Your task to perform on an android device: Go to Yahoo.com Image 0: 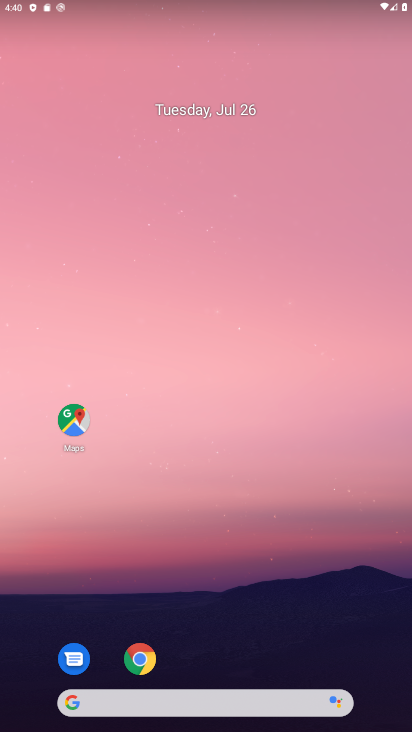
Step 0: click (145, 659)
Your task to perform on an android device: Go to Yahoo.com Image 1: 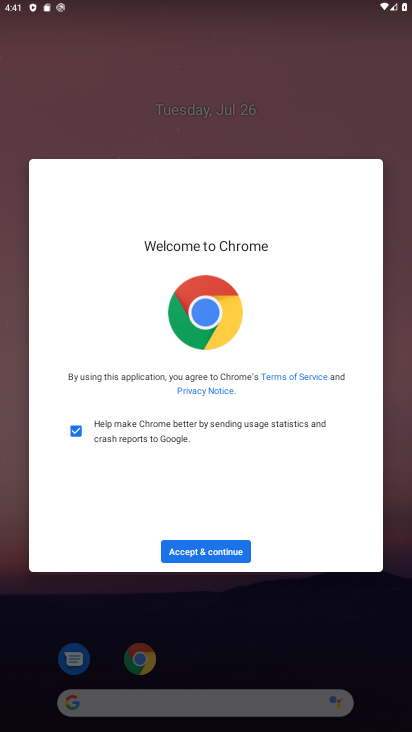
Step 1: click (197, 548)
Your task to perform on an android device: Go to Yahoo.com Image 2: 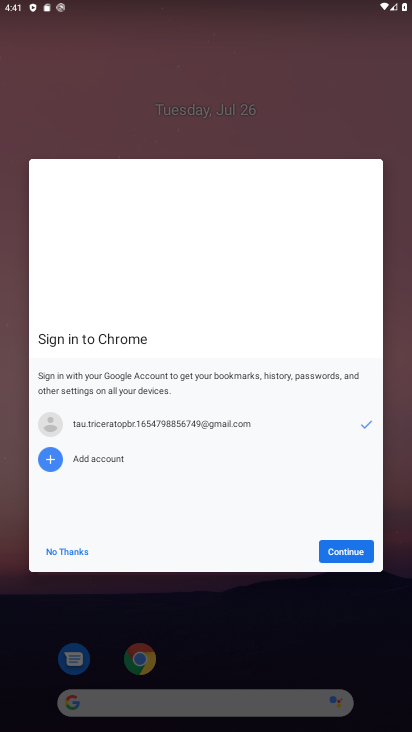
Step 2: click (350, 543)
Your task to perform on an android device: Go to Yahoo.com Image 3: 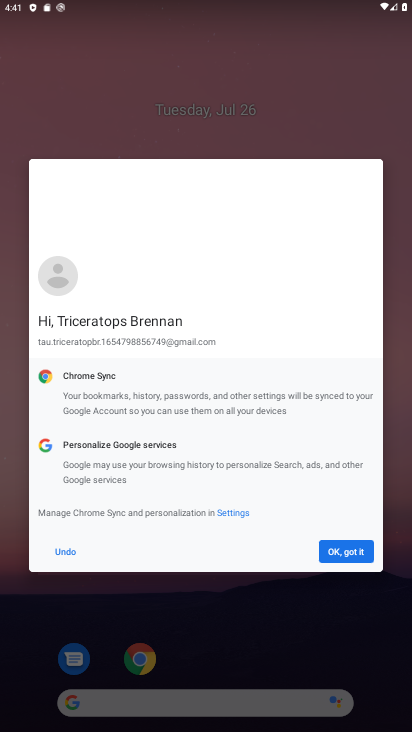
Step 3: click (347, 551)
Your task to perform on an android device: Go to Yahoo.com Image 4: 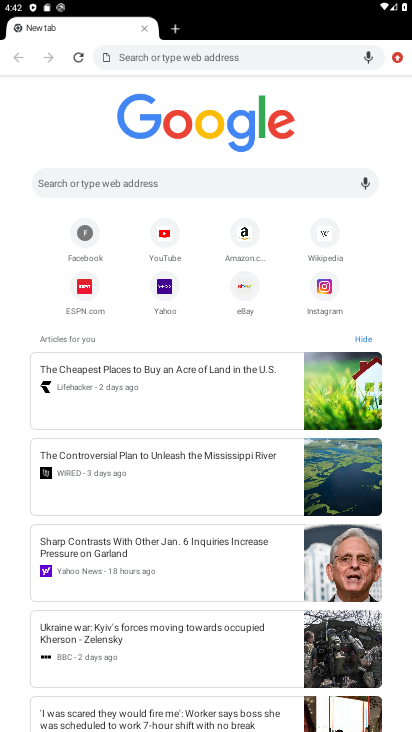
Step 4: click (121, 185)
Your task to perform on an android device: Go to Yahoo.com Image 5: 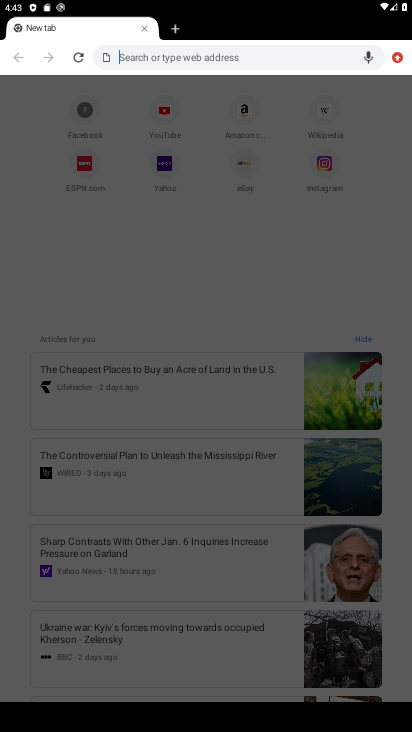
Step 5: type "Yahoo.com"
Your task to perform on an android device: Go to Yahoo.com Image 6: 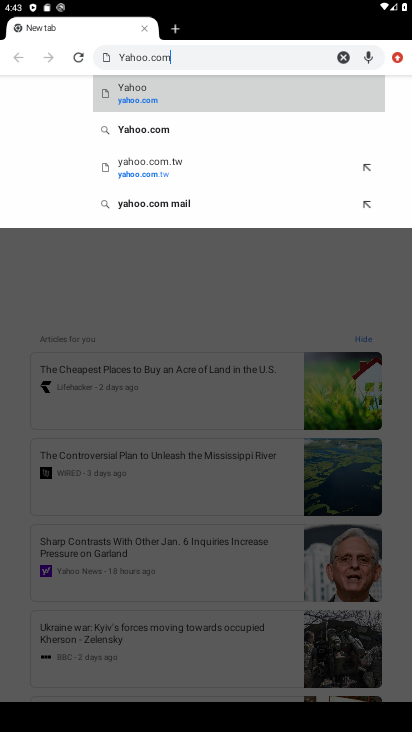
Step 6: click (135, 103)
Your task to perform on an android device: Go to Yahoo.com Image 7: 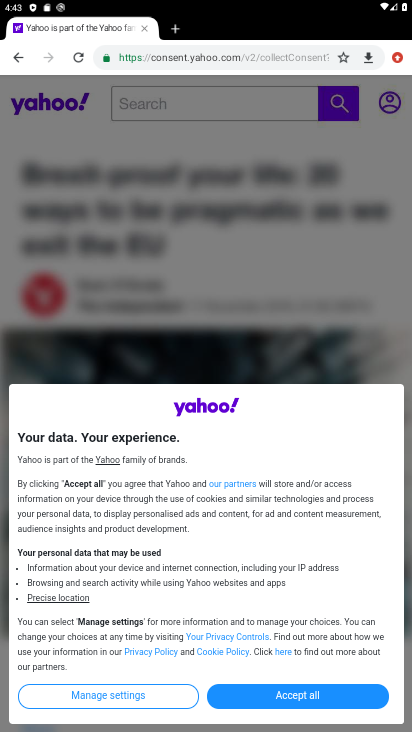
Step 7: click (291, 694)
Your task to perform on an android device: Go to Yahoo.com Image 8: 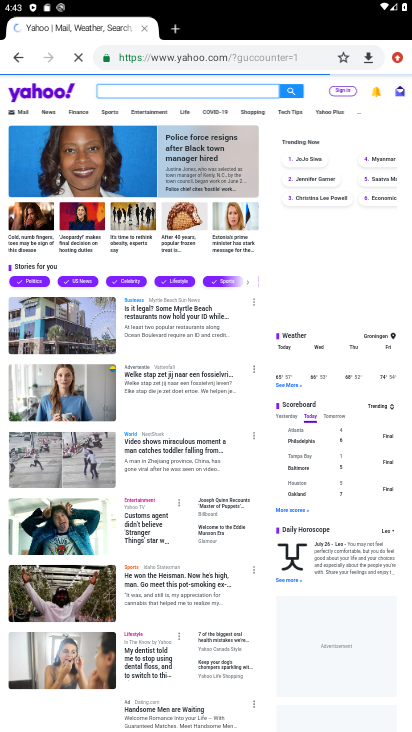
Step 8: task complete